Your task to perform on an android device: What is the capital of the United Kingdom? Image 0: 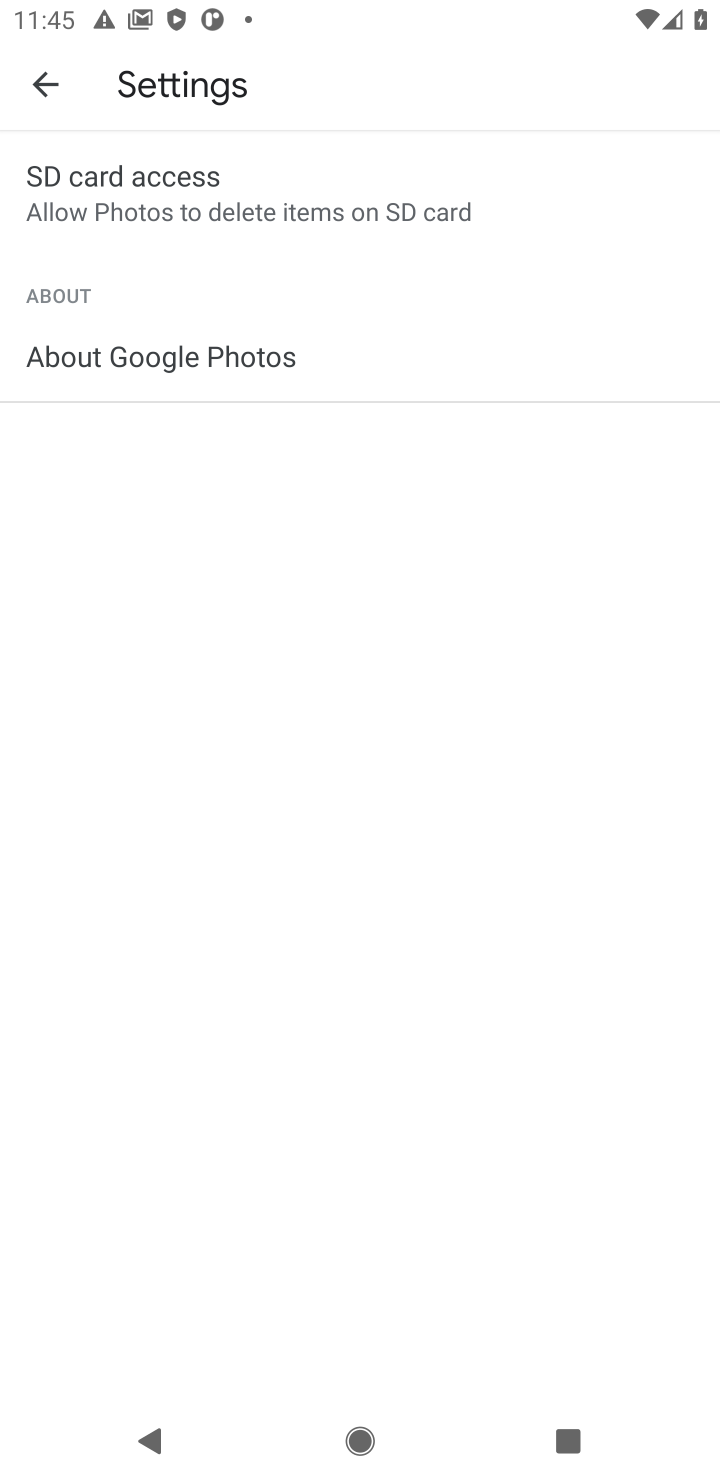
Step 0: press home button
Your task to perform on an android device: What is the capital of the United Kingdom? Image 1: 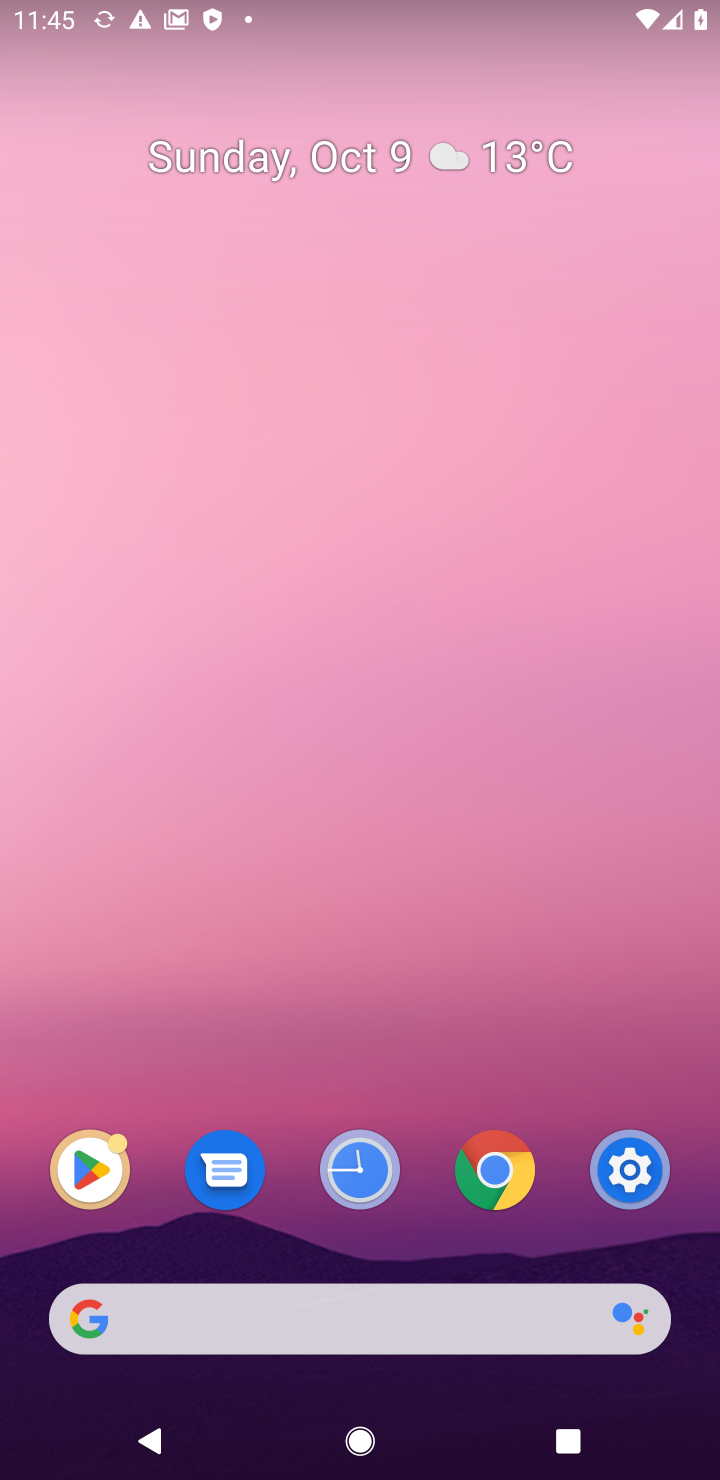
Step 1: click (501, 1178)
Your task to perform on an android device: What is the capital of the United Kingdom? Image 2: 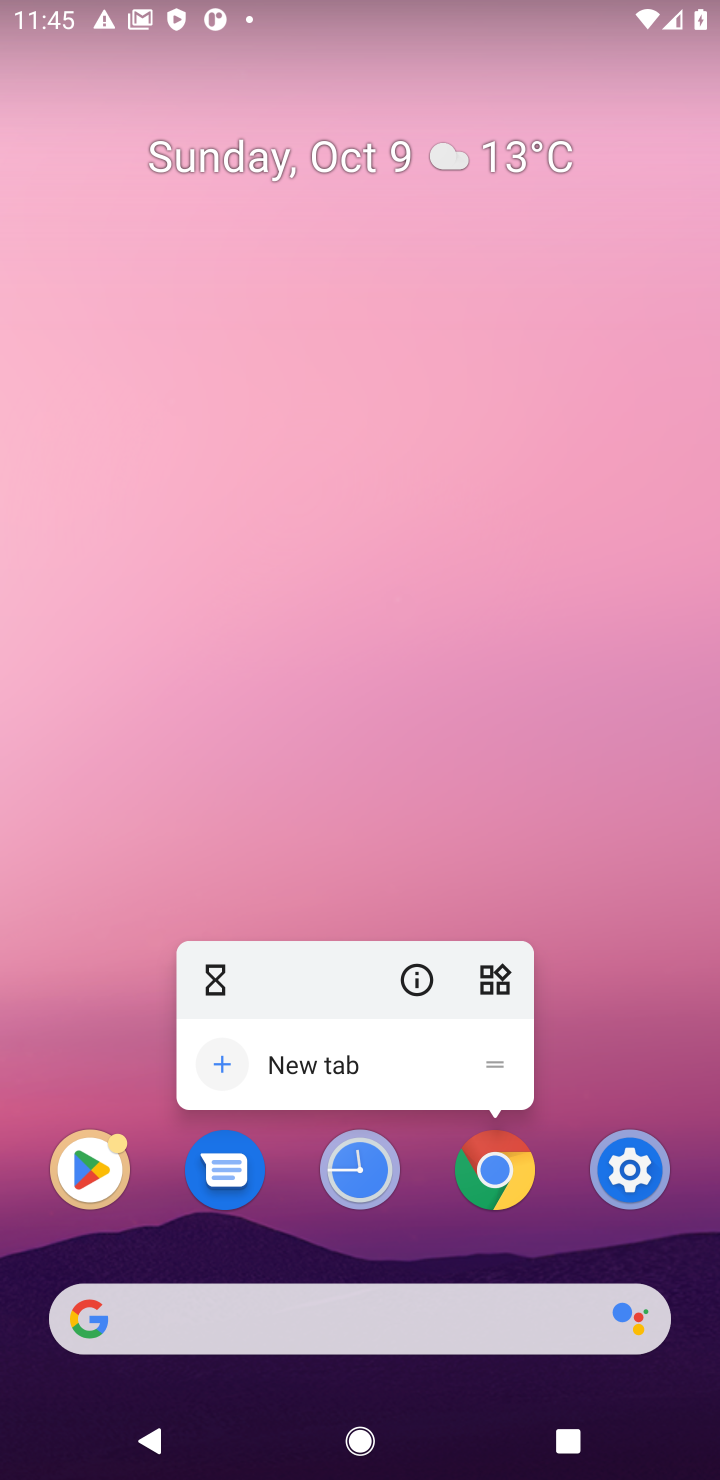
Step 2: click (495, 1174)
Your task to perform on an android device: What is the capital of the United Kingdom? Image 3: 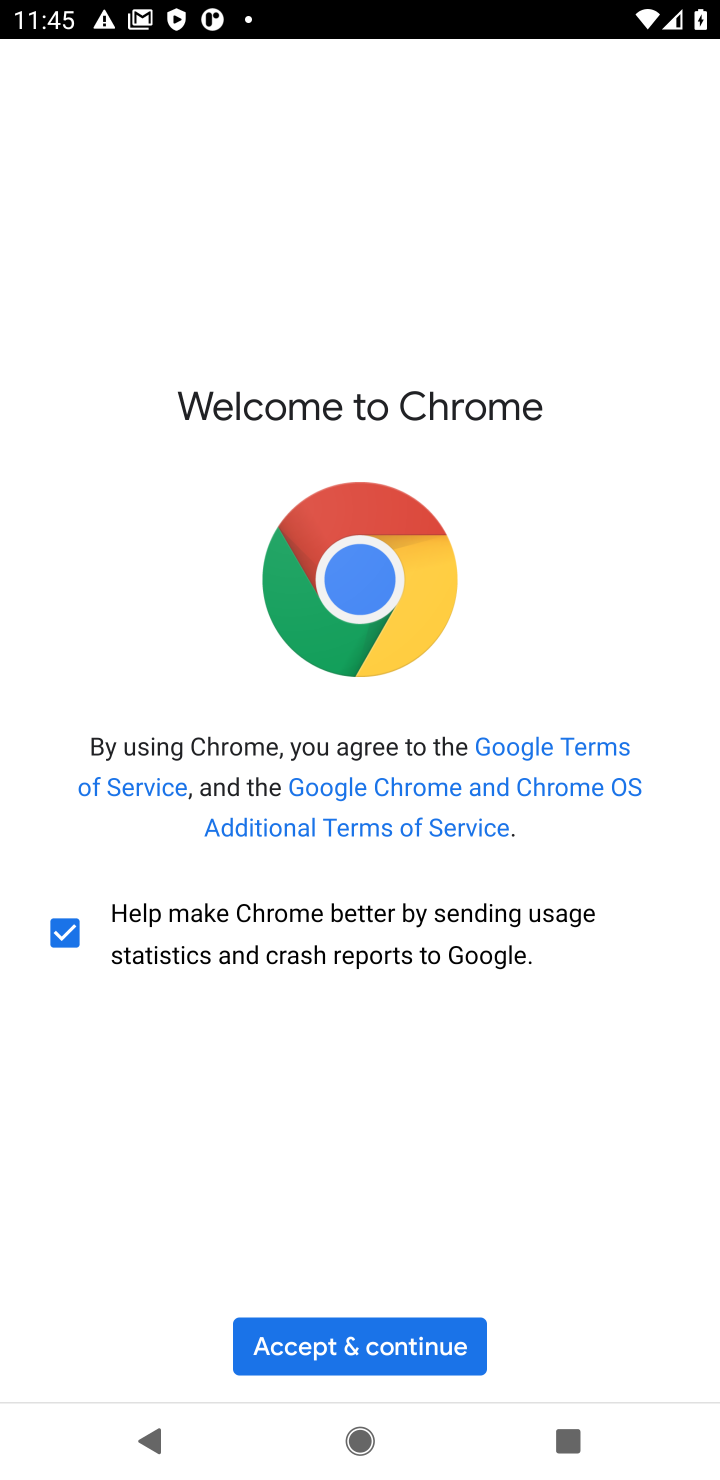
Step 3: click (386, 1350)
Your task to perform on an android device: What is the capital of the United Kingdom? Image 4: 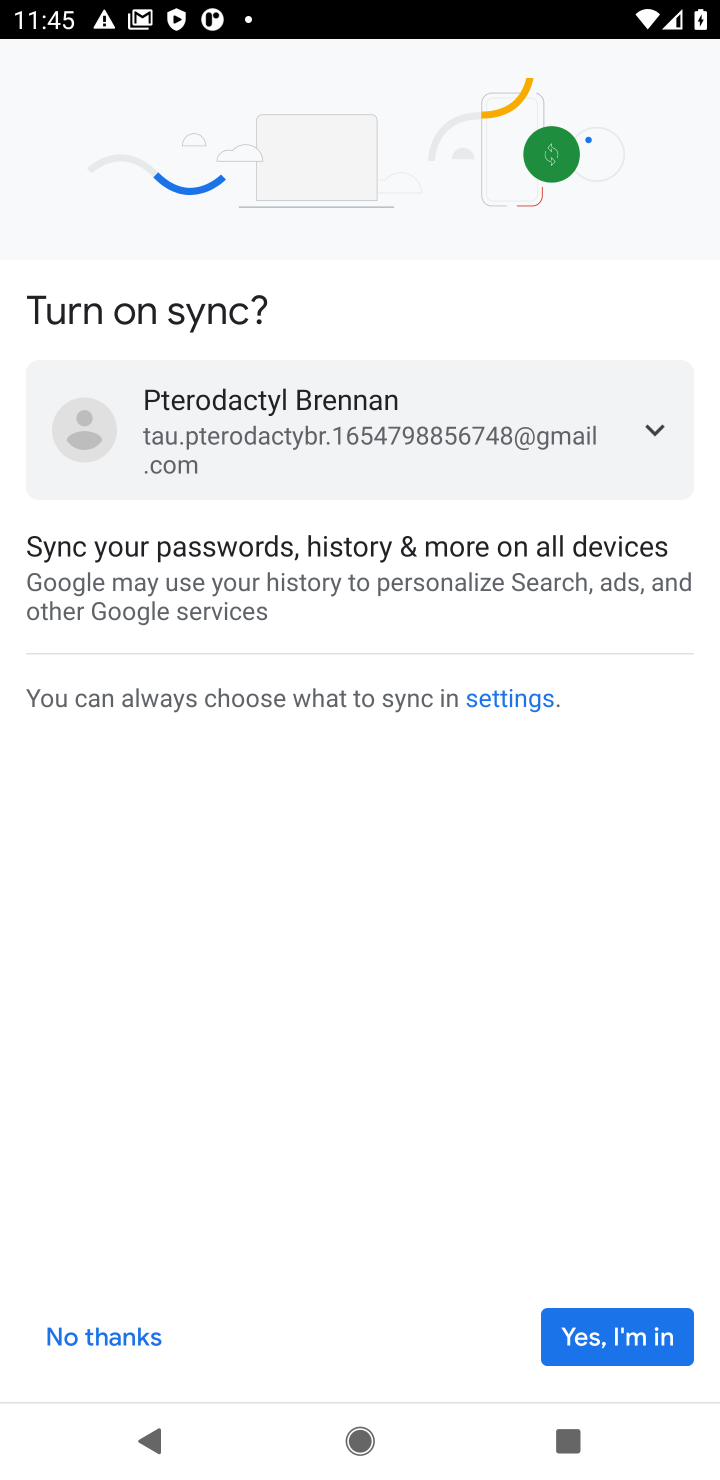
Step 4: click (602, 1347)
Your task to perform on an android device: What is the capital of the United Kingdom? Image 5: 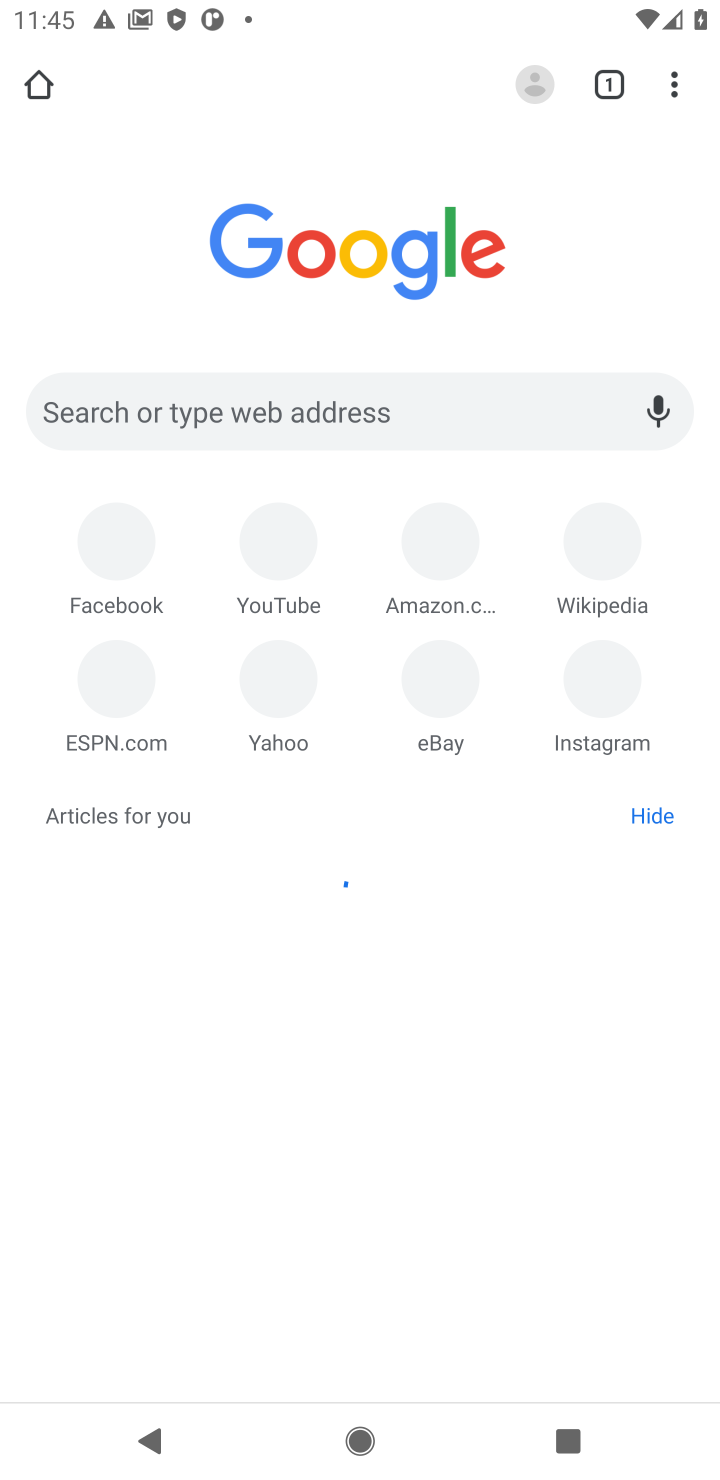
Step 5: click (354, 408)
Your task to perform on an android device: What is the capital of the United Kingdom? Image 6: 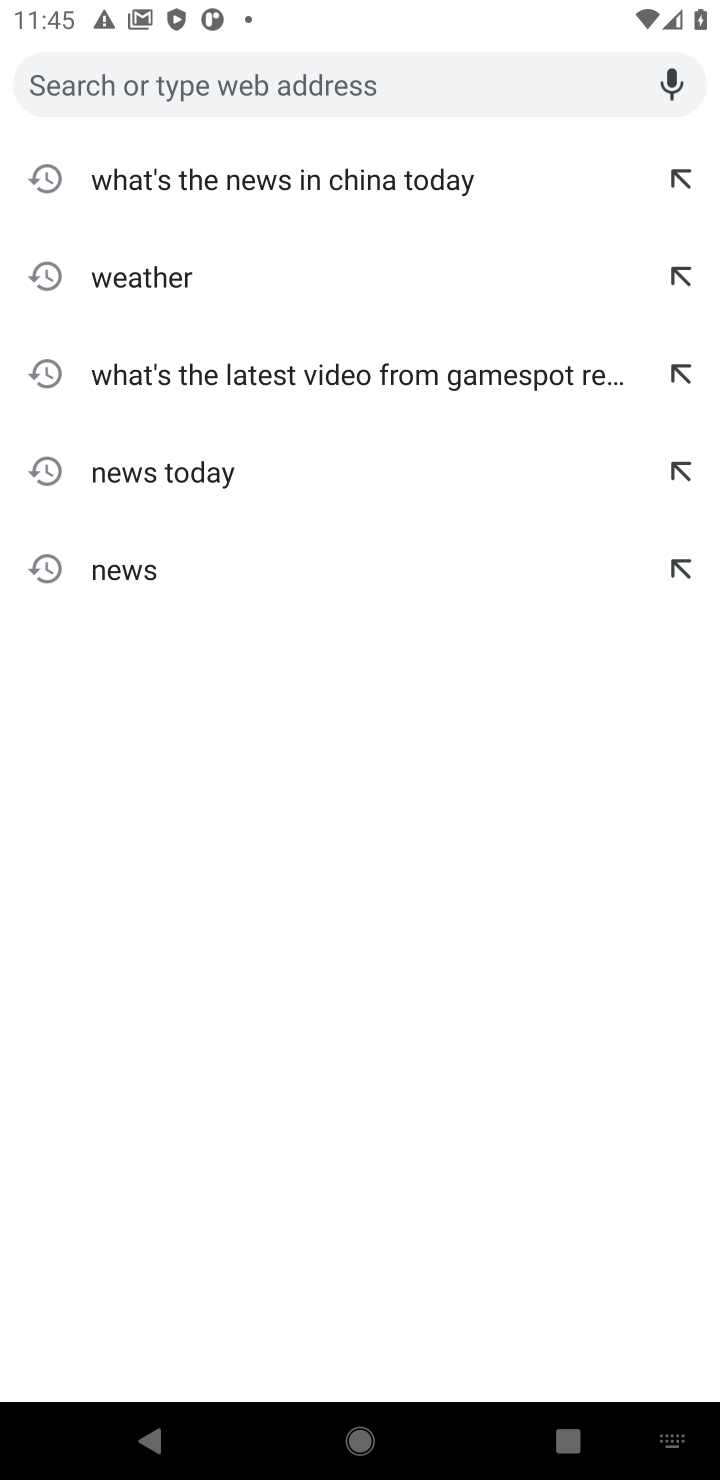
Step 6: type "capital of the United Kingdom"
Your task to perform on an android device: What is the capital of the United Kingdom? Image 7: 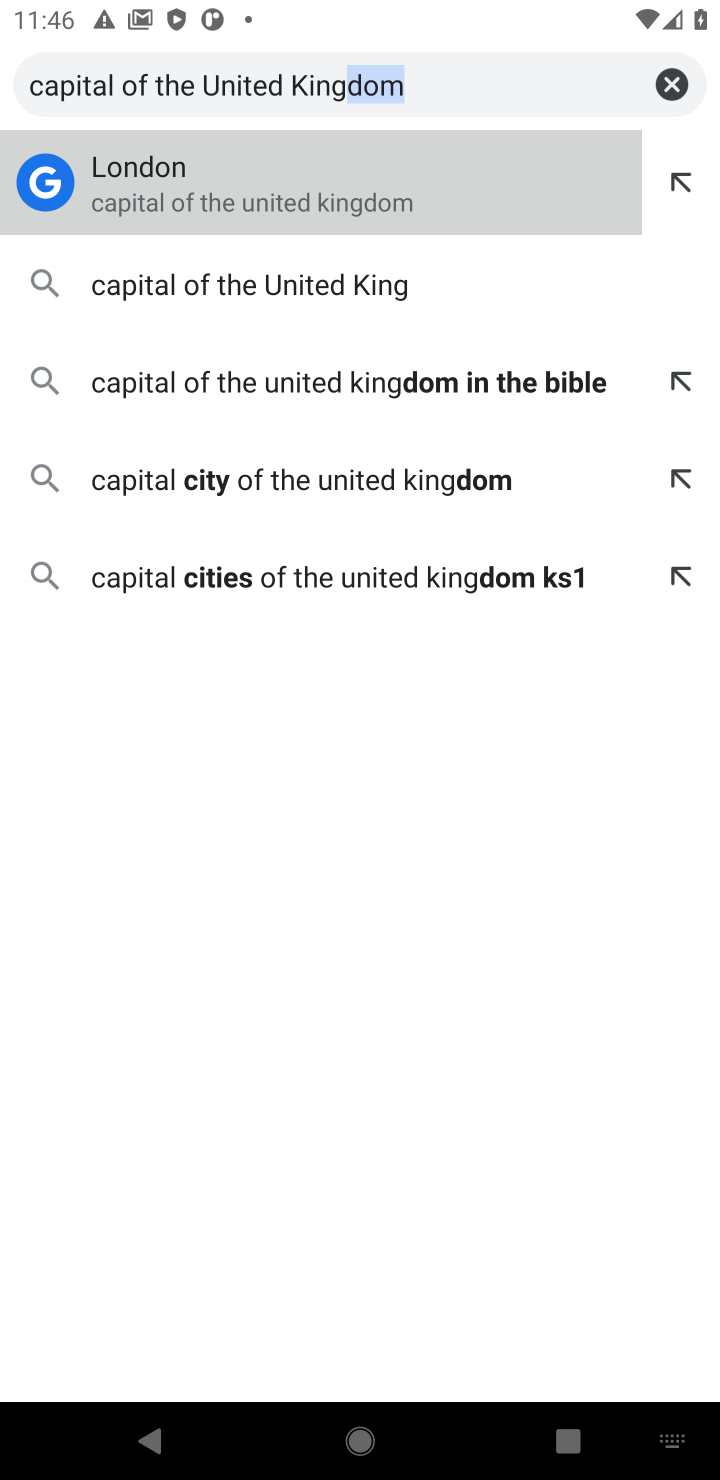
Step 7: click (470, 190)
Your task to perform on an android device: What is the capital of the United Kingdom? Image 8: 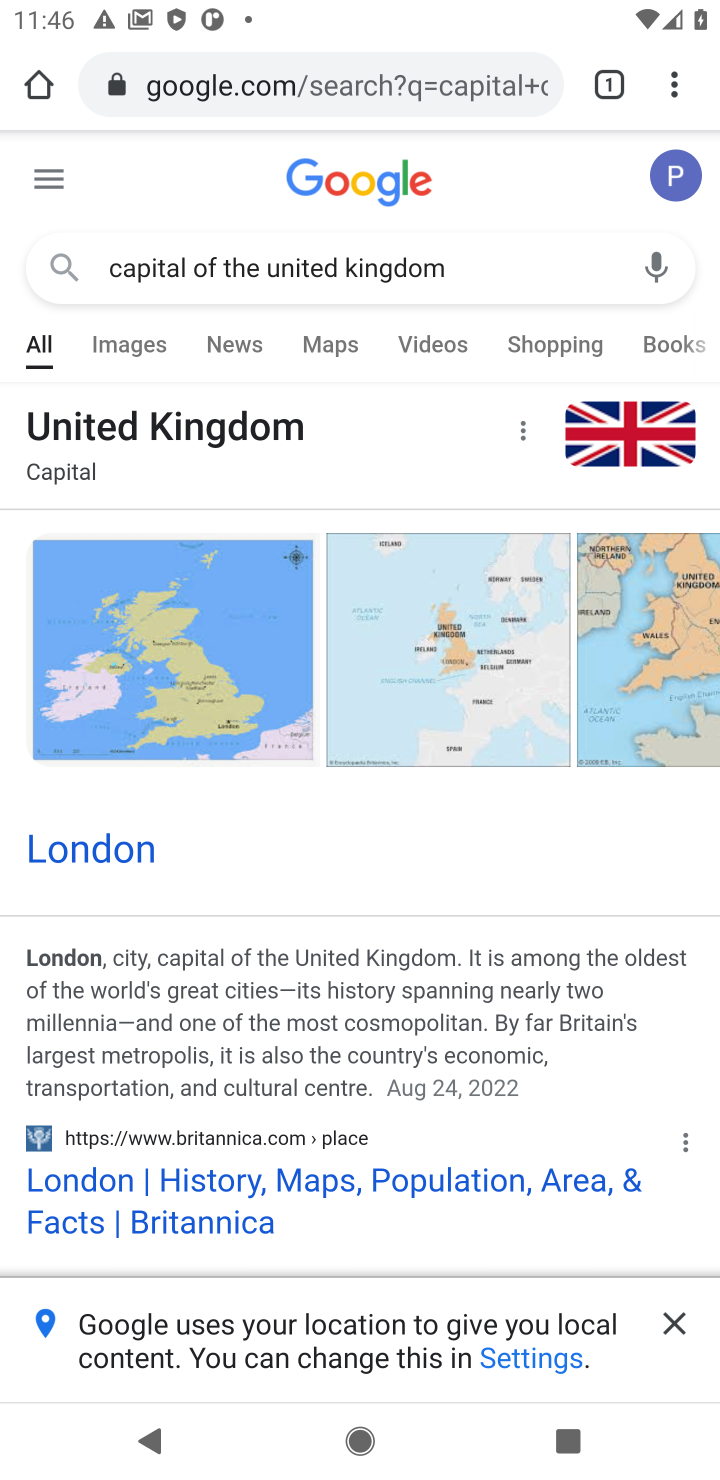
Step 8: task complete